Your task to perform on an android device: Open Google Chrome Image 0: 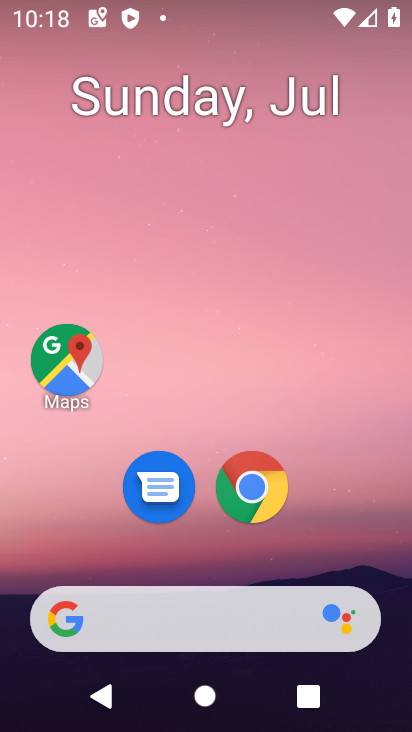
Step 0: click (246, 501)
Your task to perform on an android device: Open Google Chrome Image 1: 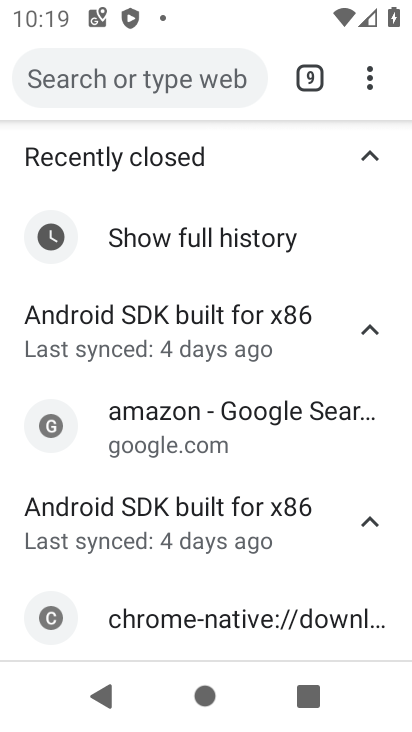
Step 1: task complete